Your task to perform on an android device: turn on bluetooth scan Image 0: 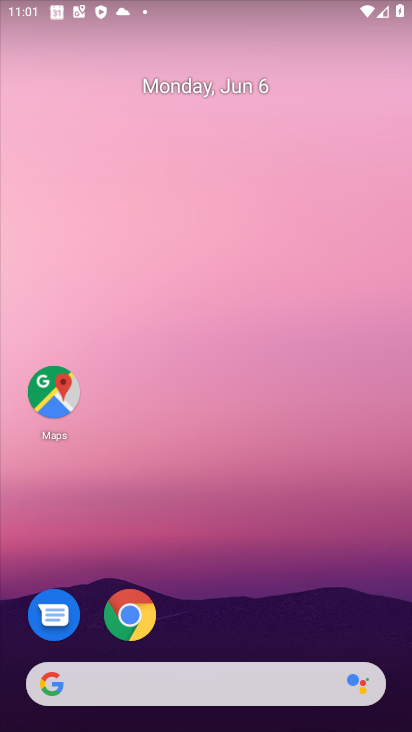
Step 0: drag from (282, 621) to (214, 66)
Your task to perform on an android device: turn on bluetooth scan Image 1: 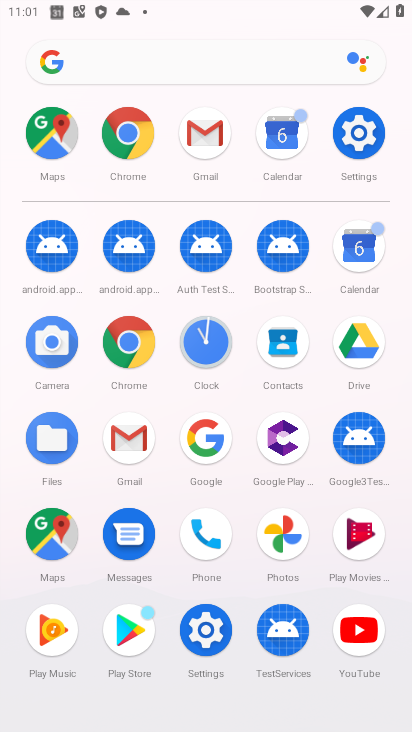
Step 1: click (219, 660)
Your task to perform on an android device: turn on bluetooth scan Image 2: 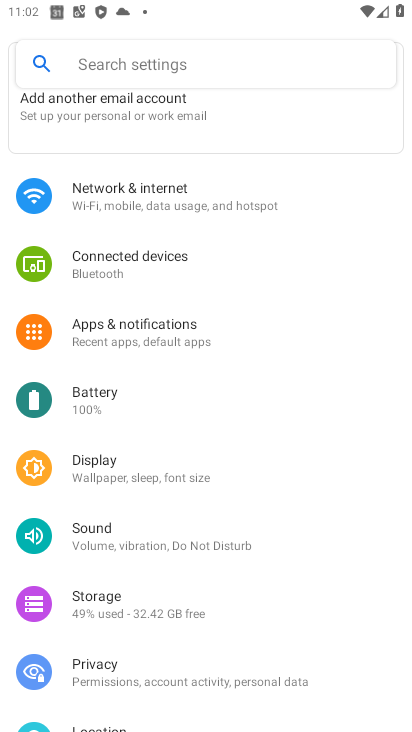
Step 2: click (143, 717)
Your task to perform on an android device: turn on bluetooth scan Image 3: 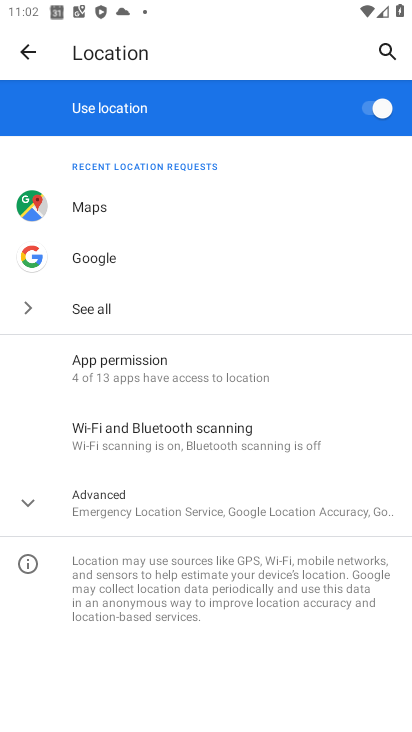
Step 3: click (155, 451)
Your task to perform on an android device: turn on bluetooth scan Image 4: 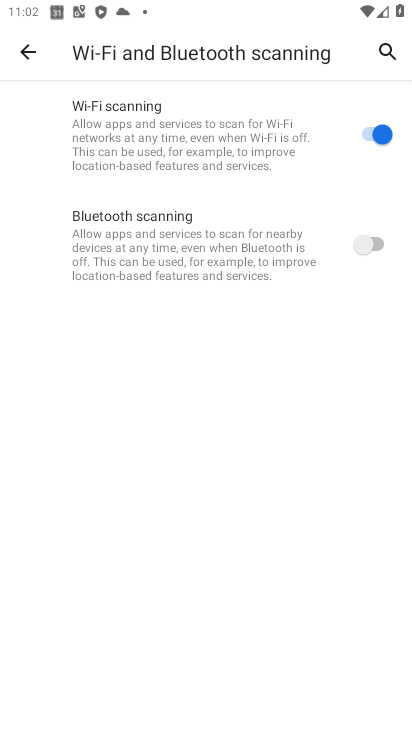
Step 4: click (305, 231)
Your task to perform on an android device: turn on bluetooth scan Image 5: 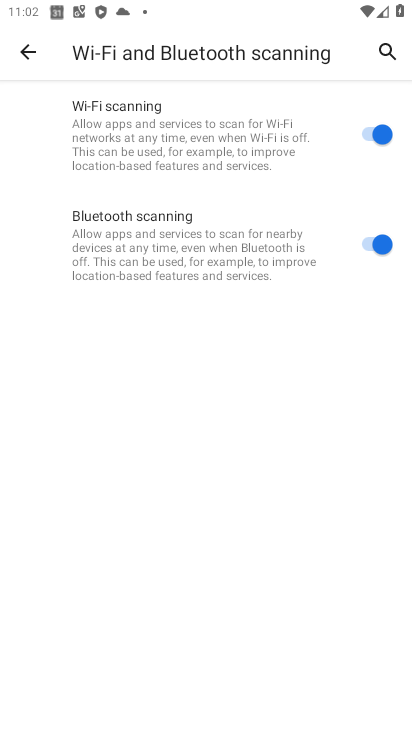
Step 5: task complete